Your task to perform on an android device: read, delete, or share a saved page in the chrome app Image 0: 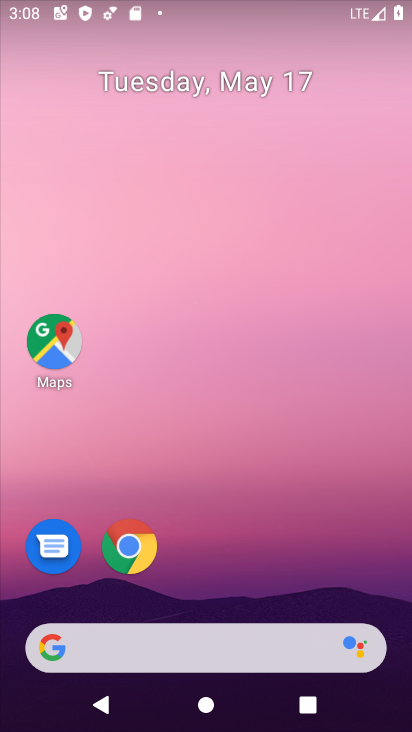
Step 0: press home button
Your task to perform on an android device: read, delete, or share a saved page in the chrome app Image 1: 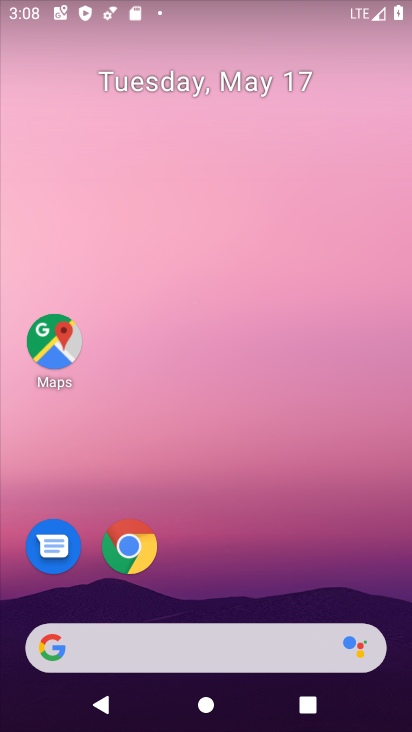
Step 1: click (122, 544)
Your task to perform on an android device: read, delete, or share a saved page in the chrome app Image 2: 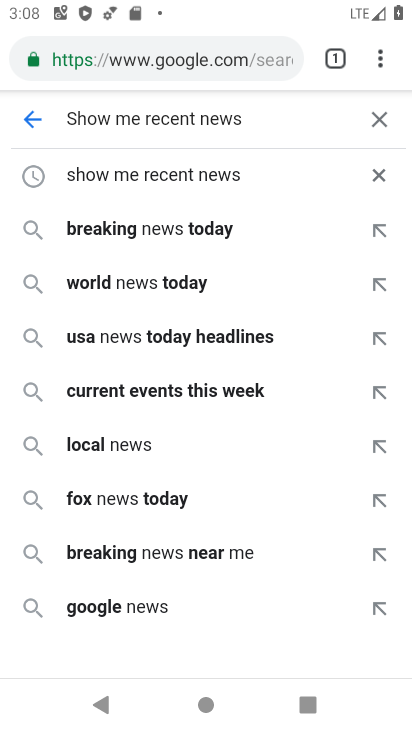
Step 2: drag from (390, 49) to (161, 403)
Your task to perform on an android device: read, delete, or share a saved page in the chrome app Image 3: 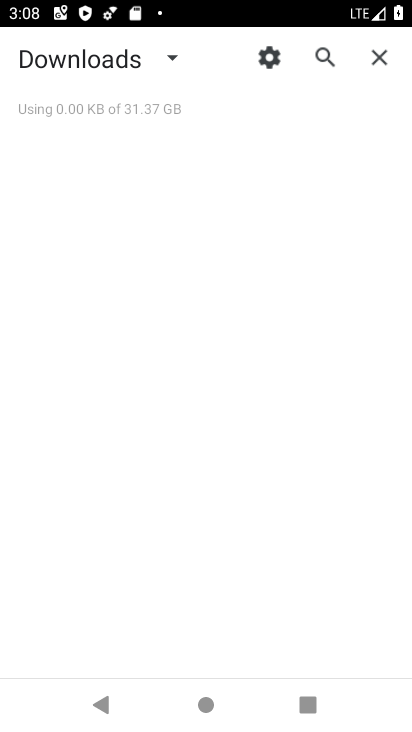
Step 3: click (169, 51)
Your task to perform on an android device: read, delete, or share a saved page in the chrome app Image 4: 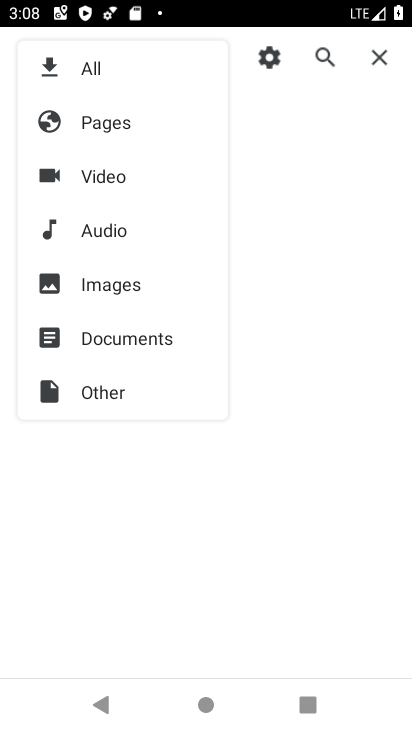
Step 4: click (139, 122)
Your task to perform on an android device: read, delete, or share a saved page in the chrome app Image 5: 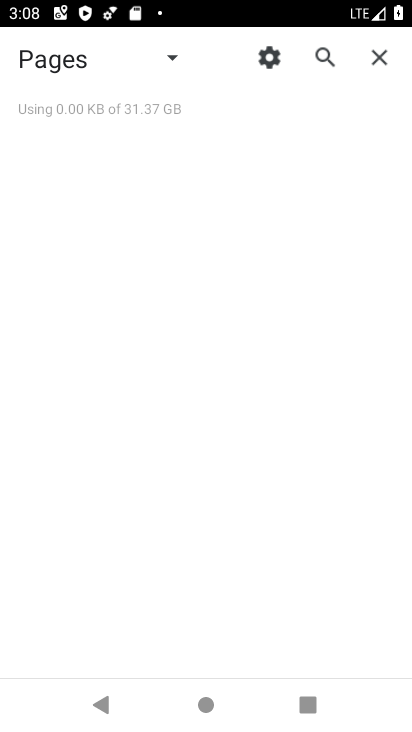
Step 5: task complete